Your task to perform on an android device: Go to Wikipedia Image 0: 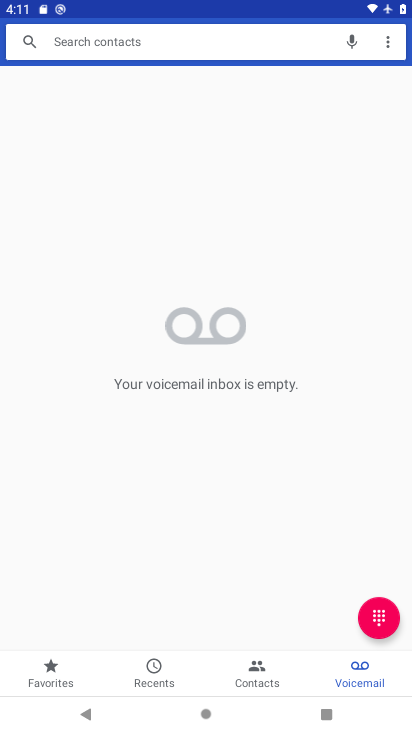
Step 0: press home button
Your task to perform on an android device: Go to Wikipedia Image 1: 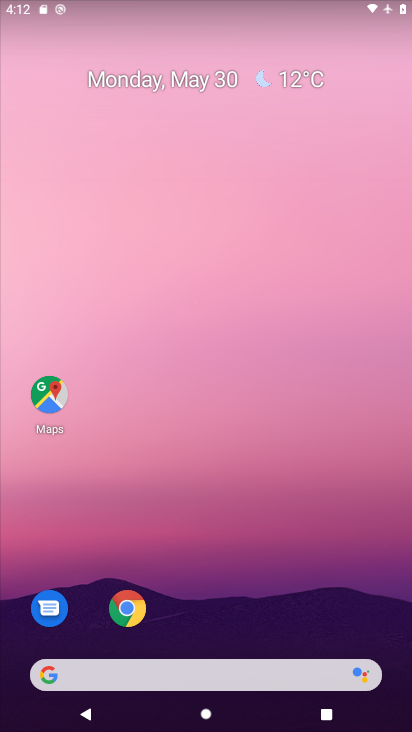
Step 1: click (141, 609)
Your task to perform on an android device: Go to Wikipedia Image 2: 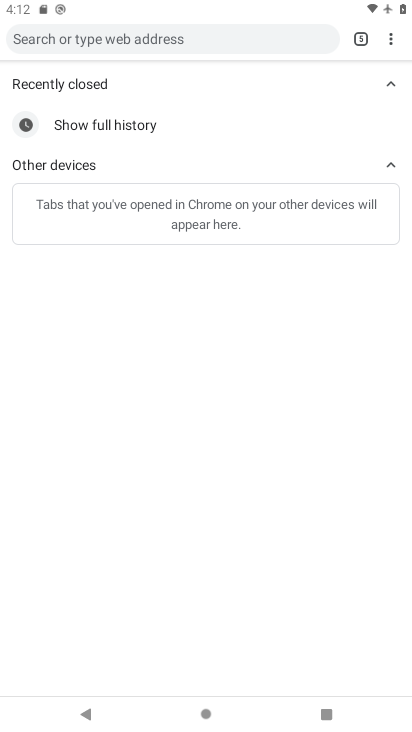
Step 2: click (364, 44)
Your task to perform on an android device: Go to Wikipedia Image 3: 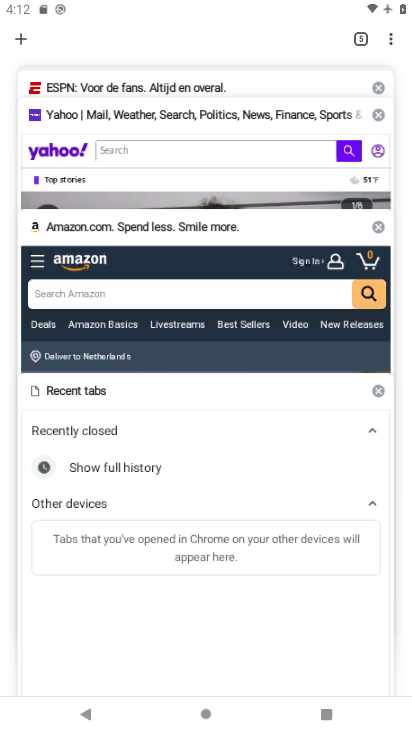
Step 3: click (30, 39)
Your task to perform on an android device: Go to Wikipedia Image 4: 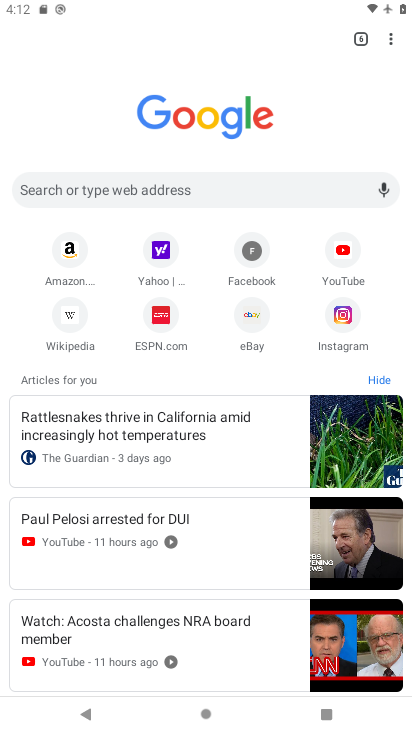
Step 4: click (73, 334)
Your task to perform on an android device: Go to Wikipedia Image 5: 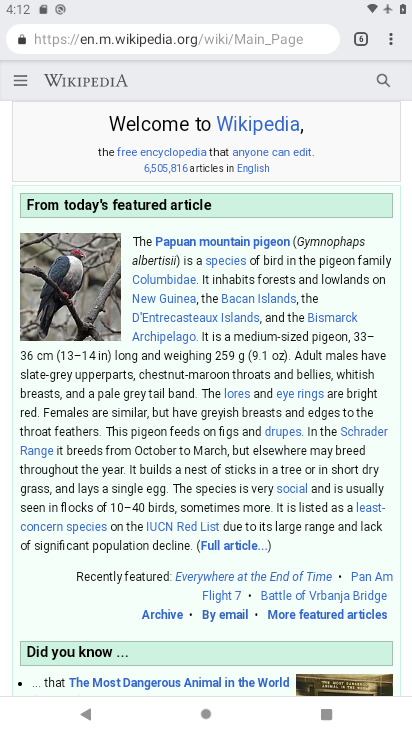
Step 5: task complete